Your task to perform on an android device: allow notifications from all sites in the chrome app Image 0: 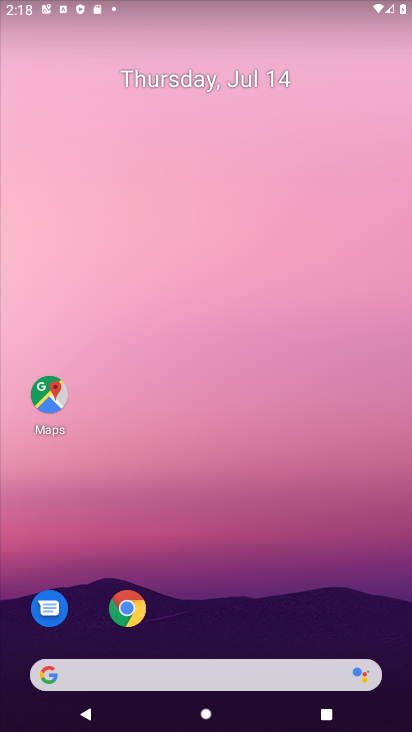
Step 0: click (128, 606)
Your task to perform on an android device: allow notifications from all sites in the chrome app Image 1: 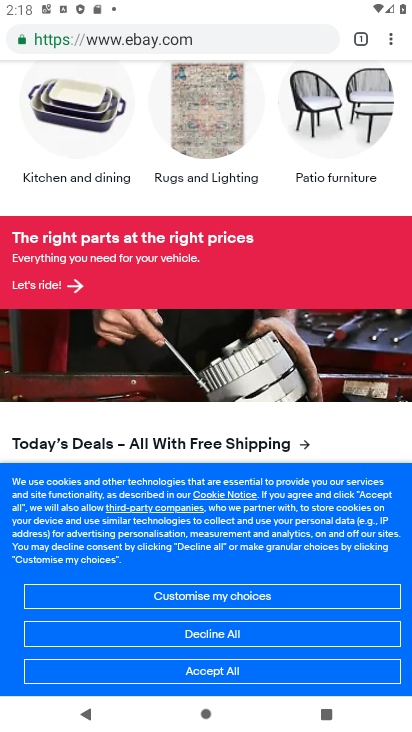
Step 1: click (390, 44)
Your task to perform on an android device: allow notifications from all sites in the chrome app Image 2: 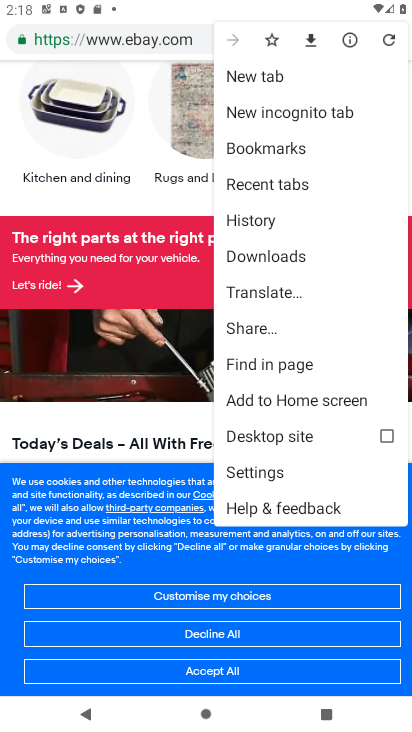
Step 2: click (254, 470)
Your task to perform on an android device: allow notifications from all sites in the chrome app Image 3: 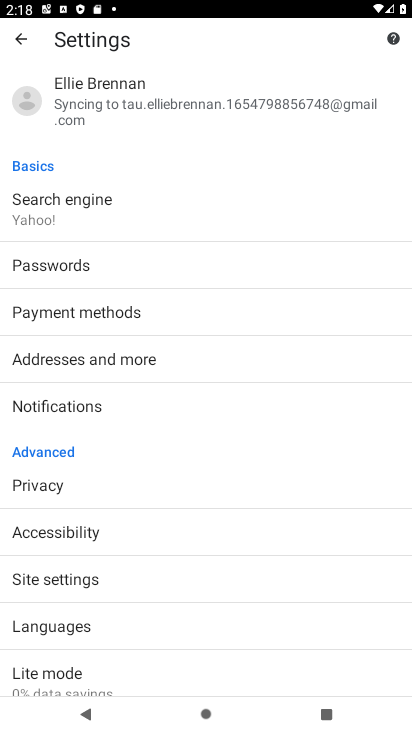
Step 3: click (47, 578)
Your task to perform on an android device: allow notifications from all sites in the chrome app Image 4: 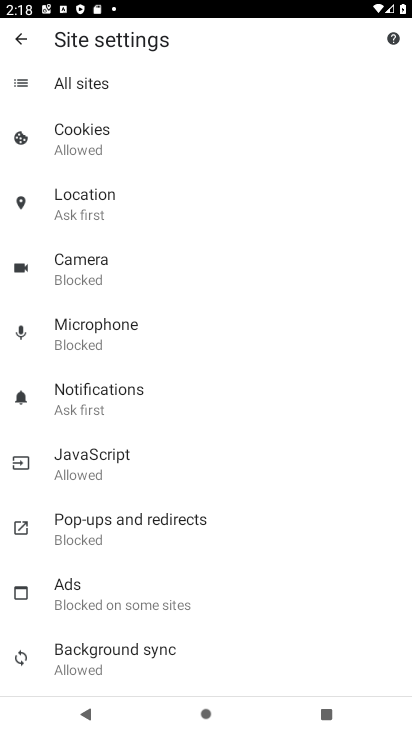
Step 4: click (81, 388)
Your task to perform on an android device: allow notifications from all sites in the chrome app Image 5: 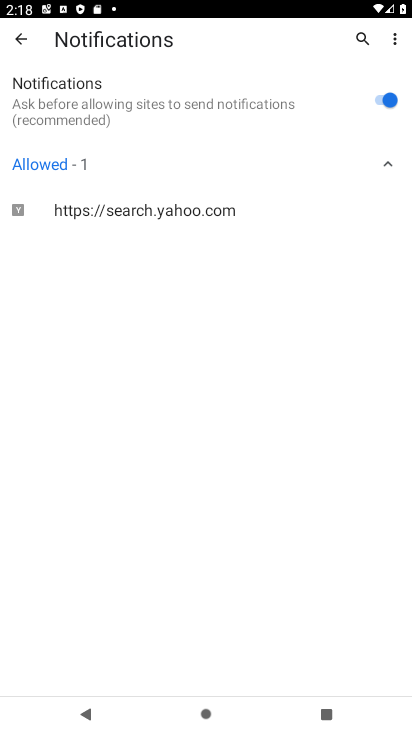
Step 5: task complete